Your task to perform on an android device: set default search engine in the chrome app Image 0: 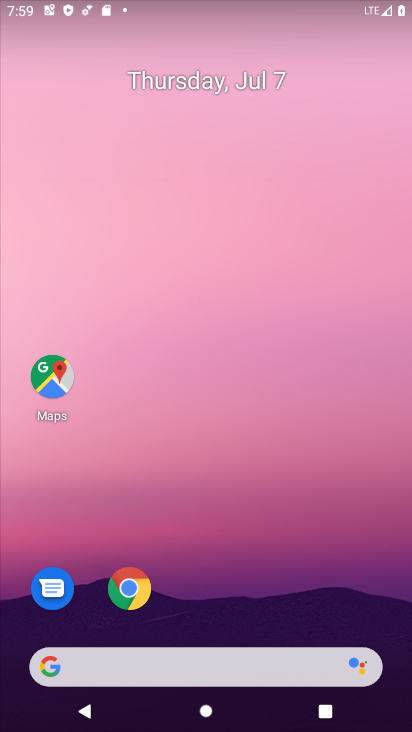
Step 0: drag from (244, 619) to (225, 413)
Your task to perform on an android device: set default search engine in the chrome app Image 1: 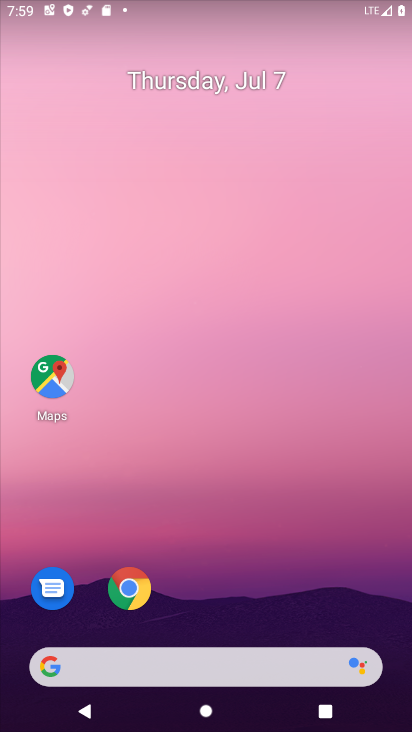
Step 1: drag from (217, 564) to (219, 257)
Your task to perform on an android device: set default search engine in the chrome app Image 2: 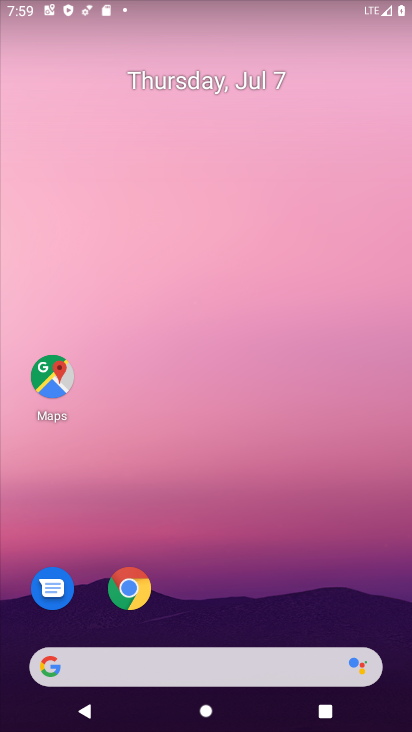
Step 2: drag from (283, 617) to (245, 150)
Your task to perform on an android device: set default search engine in the chrome app Image 3: 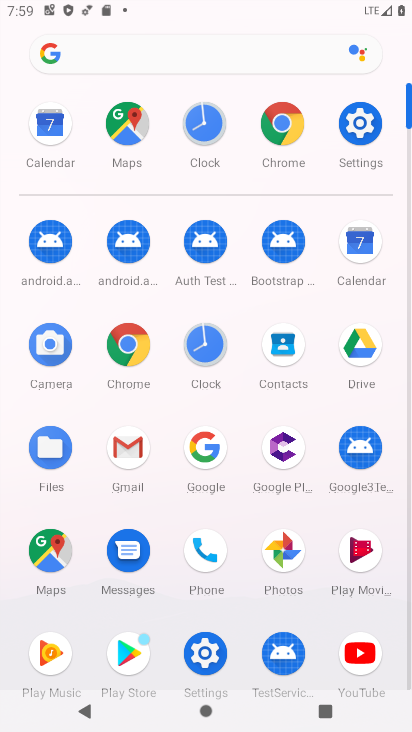
Step 3: click (289, 120)
Your task to perform on an android device: set default search engine in the chrome app Image 4: 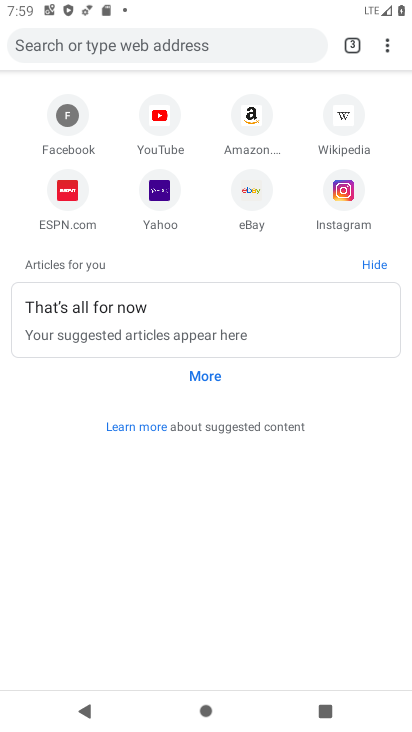
Step 4: click (383, 43)
Your task to perform on an android device: set default search engine in the chrome app Image 5: 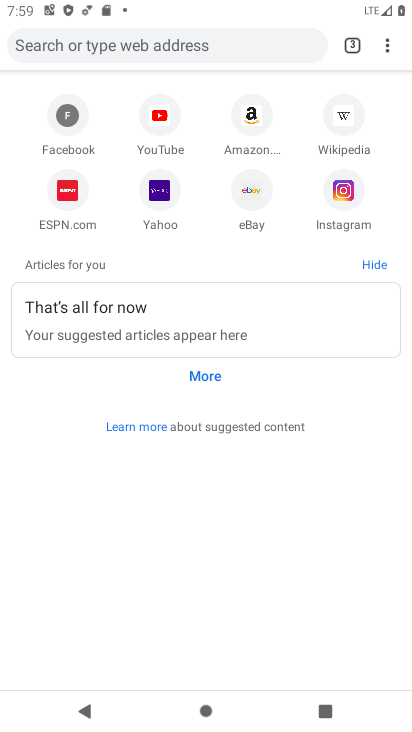
Step 5: click (400, 35)
Your task to perform on an android device: set default search engine in the chrome app Image 6: 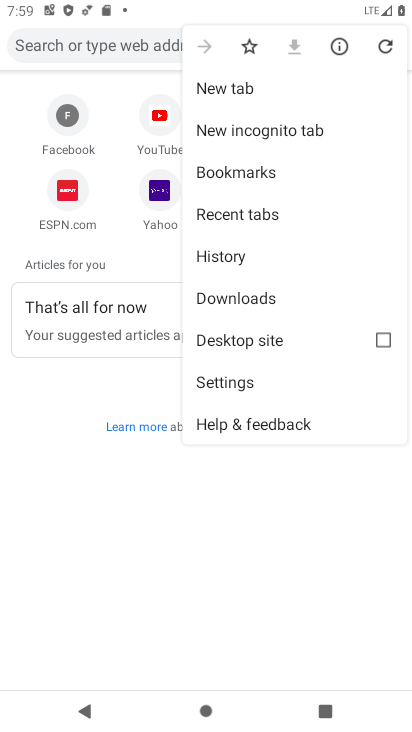
Step 6: click (243, 380)
Your task to perform on an android device: set default search engine in the chrome app Image 7: 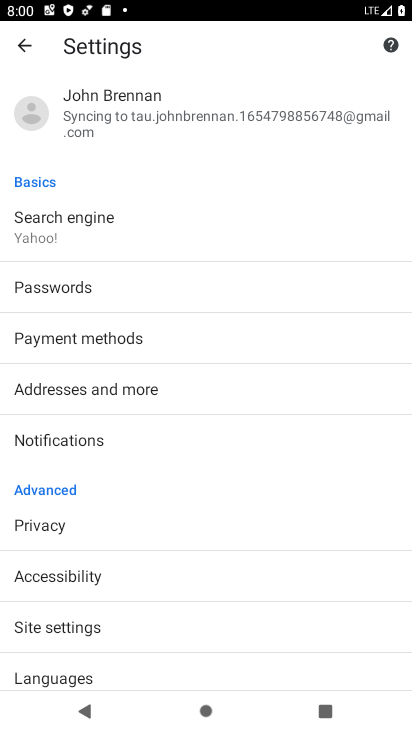
Step 7: click (133, 229)
Your task to perform on an android device: set default search engine in the chrome app Image 8: 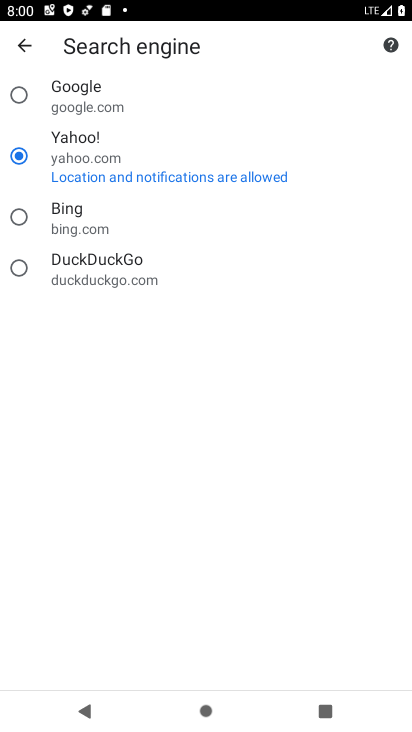
Step 8: click (72, 100)
Your task to perform on an android device: set default search engine in the chrome app Image 9: 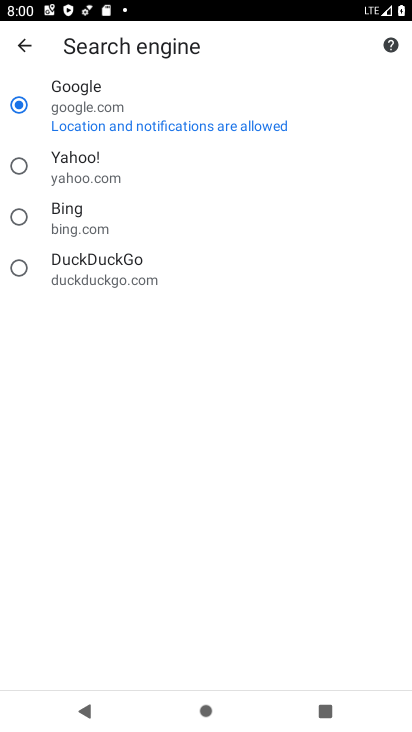
Step 9: task complete